Your task to perform on an android device: Toggle the flashlight Image 0: 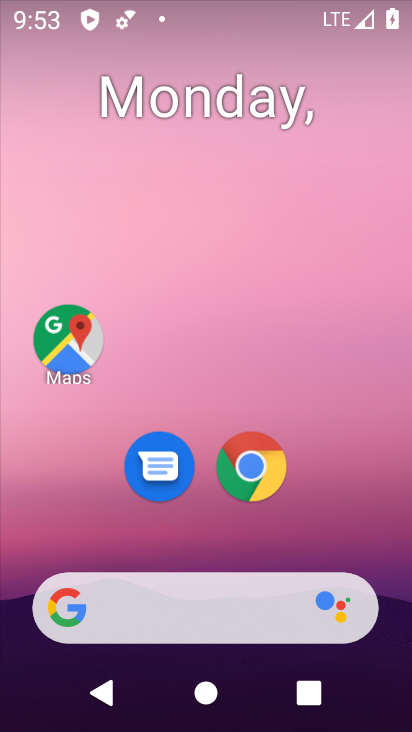
Step 0: drag from (343, 0) to (332, 345)
Your task to perform on an android device: Toggle the flashlight Image 1: 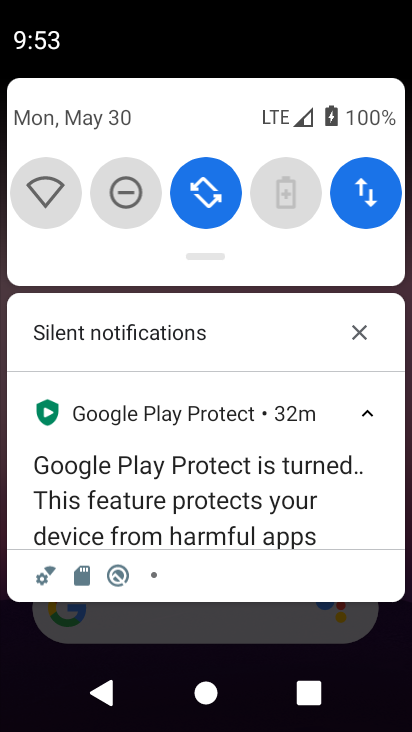
Step 1: task complete